Your task to perform on an android device: Is it going to rain today? Image 0: 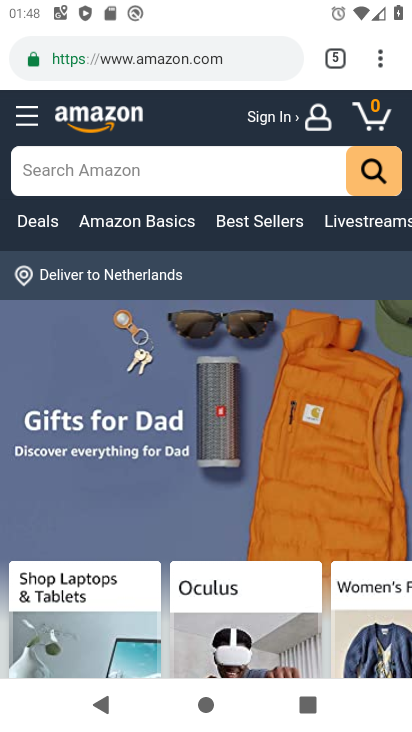
Step 0: press home button
Your task to perform on an android device: Is it going to rain today? Image 1: 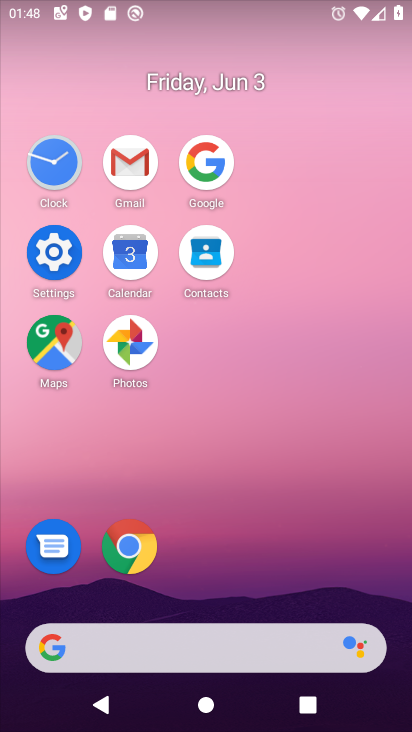
Step 1: click (221, 168)
Your task to perform on an android device: Is it going to rain today? Image 2: 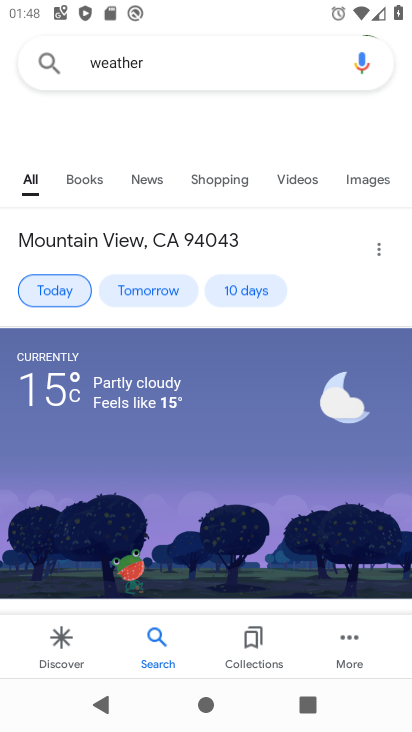
Step 2: task complete